Your task to perform on an android device: change notification settings in the gmail app Image 0: 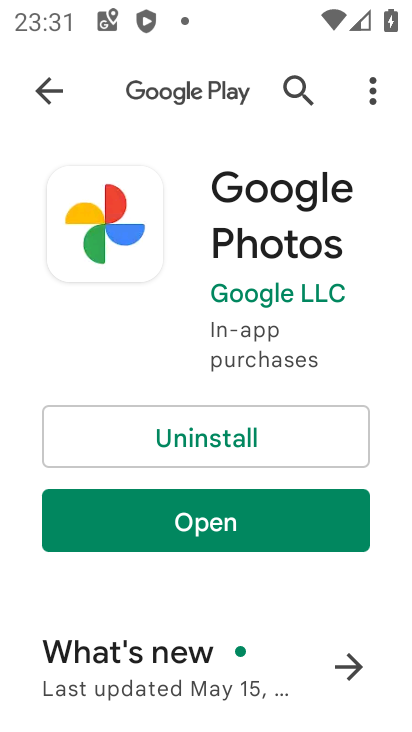
Step 0: click (343, 496)
Your task to perform on an android device: change notification settings in the gmail app Image 1: 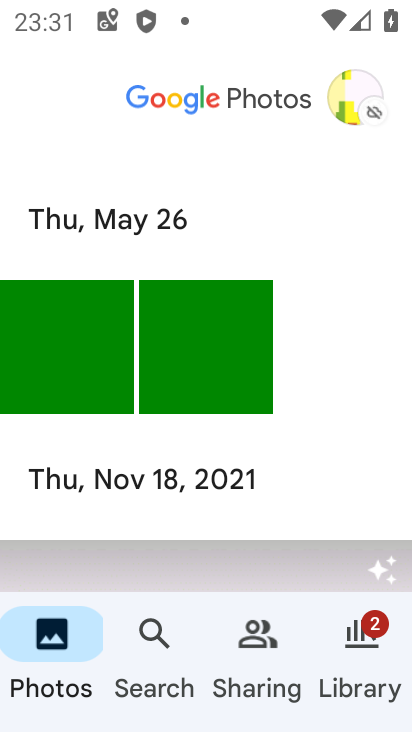
Step 1: task complete